Your task to perform on an android device: turn off picture-in-picture Image 0: 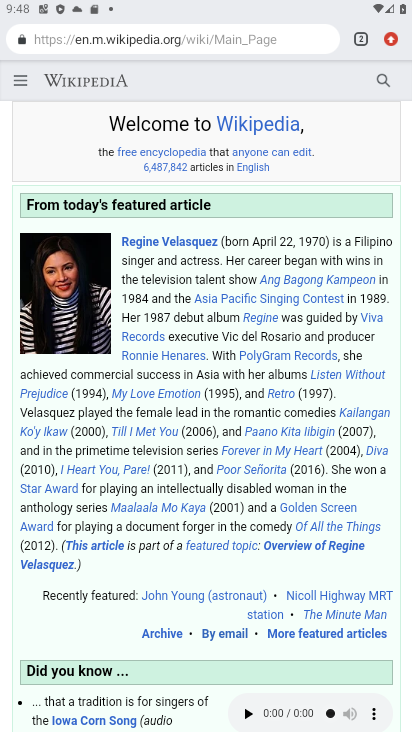
Step 0: press home button
Your task to perform on an android device: turn off picture-in-picture Image 1: 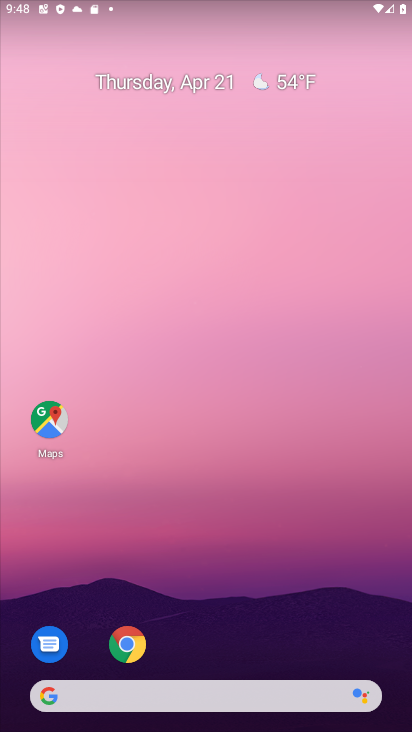
Step 1: drag from (185, 568) to (137, 208)
Your task to perform on an android device: turn off picture-in-picture Image 2: 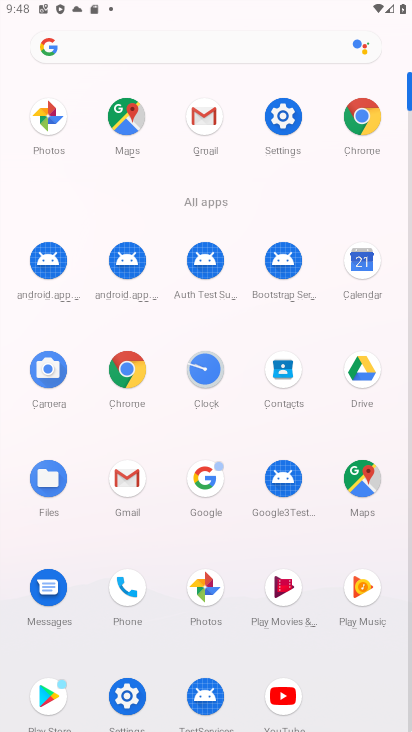
Step 2: click (283, 108)
Your task to perform on an android device: turn off picture-in-picture Image 3: 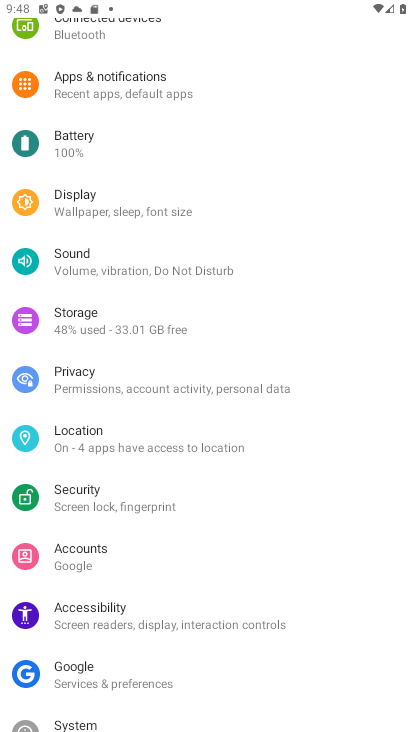
Step 3: click (136, 92)
Your task to perform on an android device: turn off picture-in-picture Image 4: 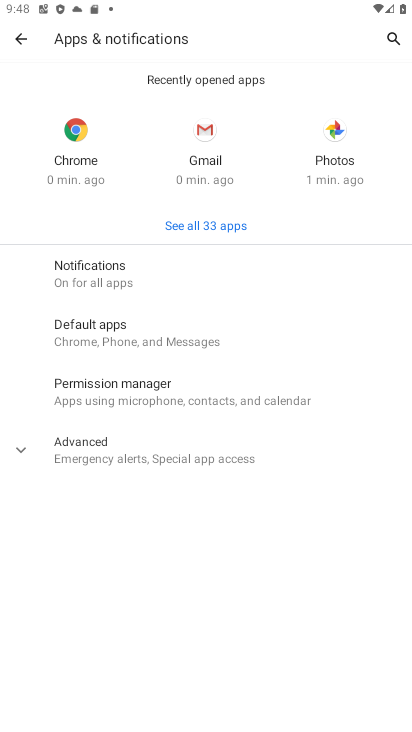
Step 4: click (125, 449)
Your task to perform on an android device: turn off picture-in-picture Image 5: 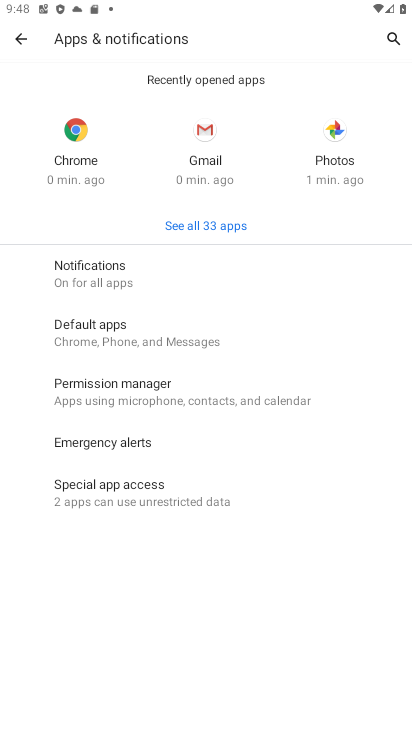
Step 5: click (110, 502)
Your task to perform on an android device: turn off picture-in-picture Image 6: 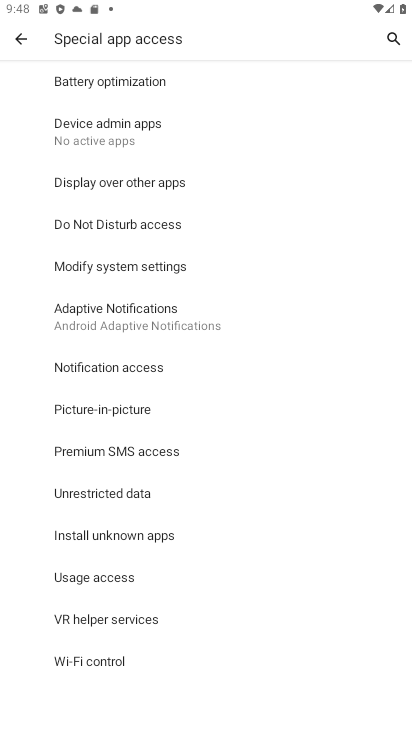
Step 6: click (123, 403)
Your task to perform on an android device: turn off picture-in-picture Image 7: 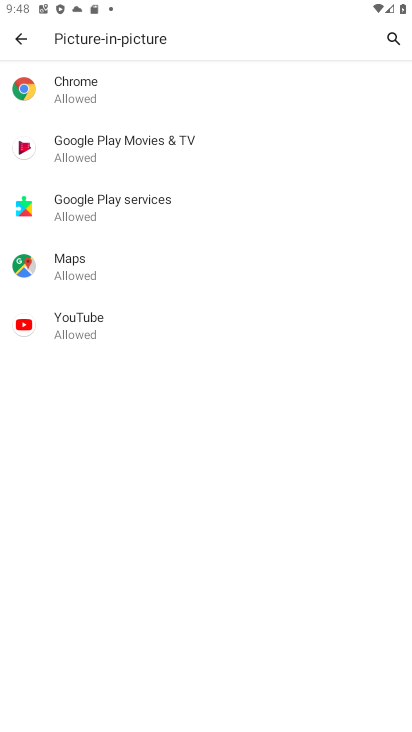
Step 7: click (106, 100)
Your task to perform on an android device: turn off picture-in-picture Image 8: 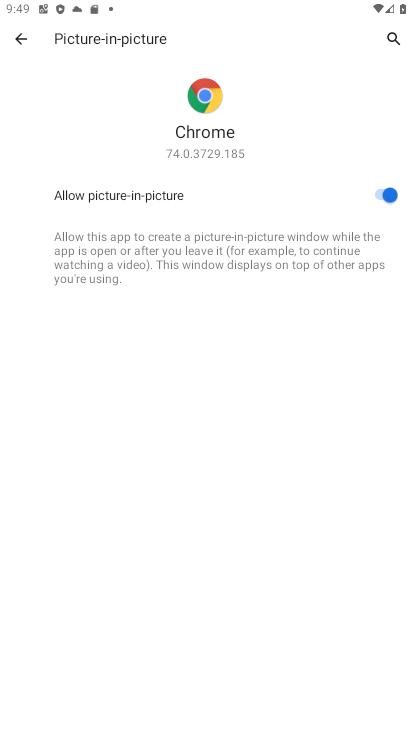
Step 8: click (384, 194)
Your task to perform on an android device: turn off picture-in-picture Image 9: 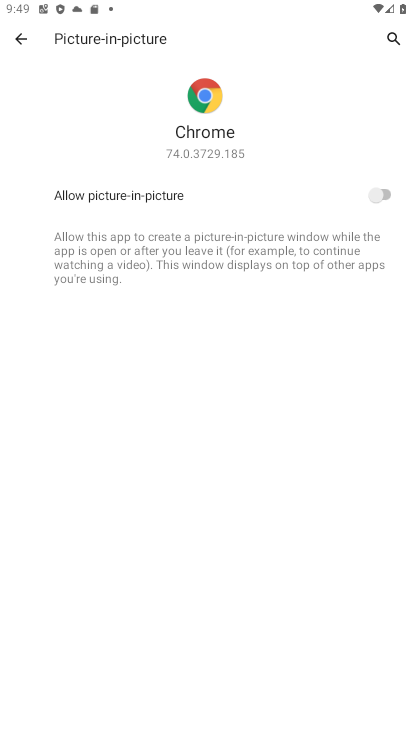
Step 9: press back button
Your task to perform on an android device: turn off picture-in-picture Image 10: 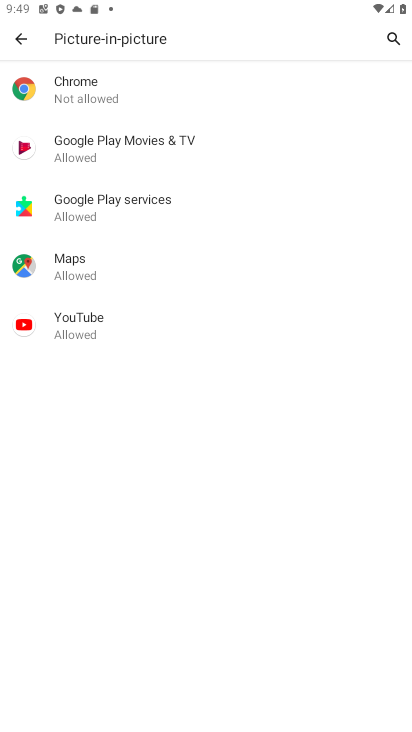
Step 10: click (237, 150)
Your task to perform on an android device: turn off picture-in-picture Image 11: 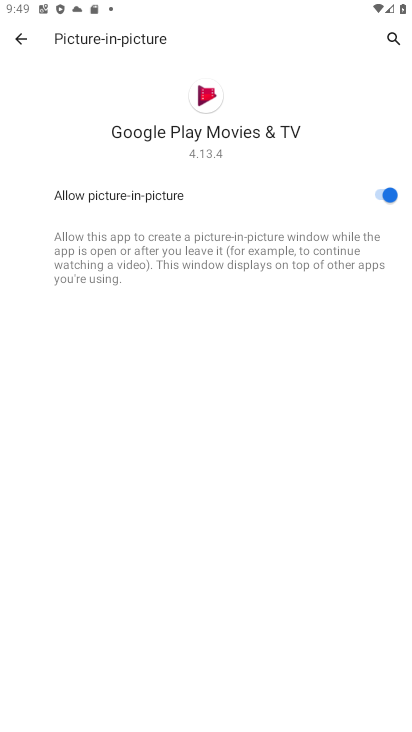
Step 11: click (384, 192)
Your task to perform on an android device: turn off picture-in-picture Image 12: 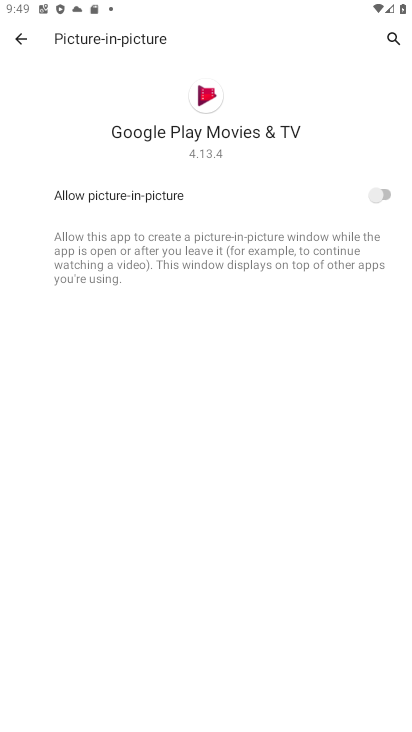
Step 12: press back button
Your task to perform on an android device: turn off picture-in-picture Image 13: 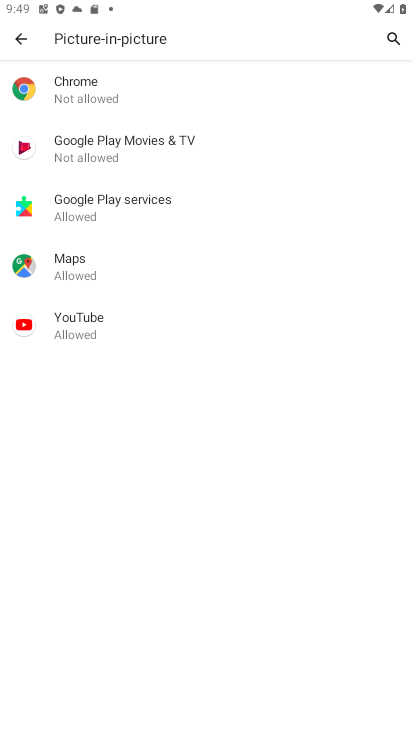
Step 13: click (158, 214)
Your task to perform on an android device: turn off picture-in-picture Image 14: 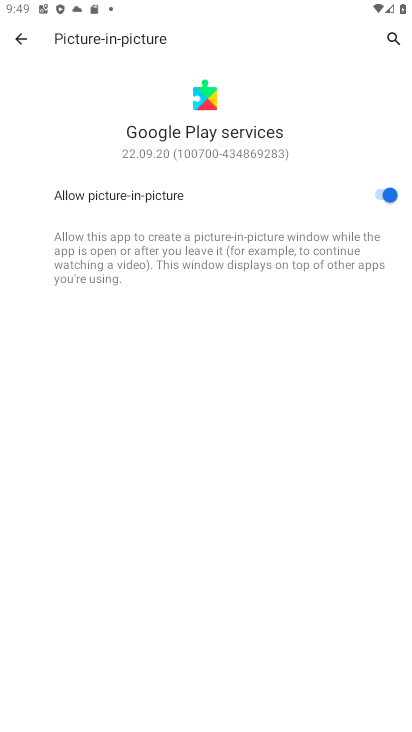
Step 14: click (391, 197)
Your task to perform on an android device: turn off picture-in-picture Image 15: 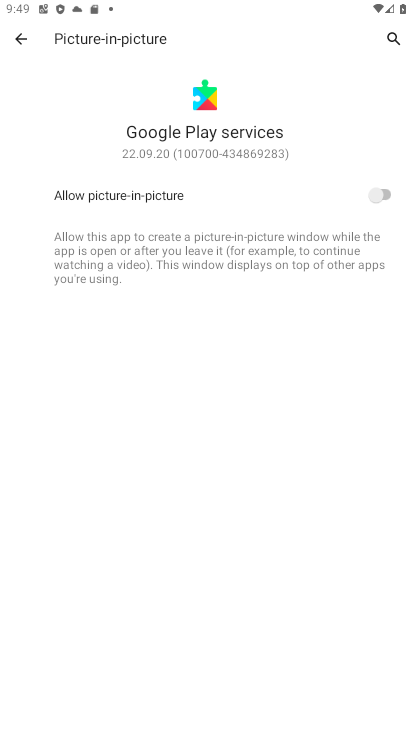
Step 15: press back button
Your task to perform on an android device: turn off picture-in-picture Image 16: 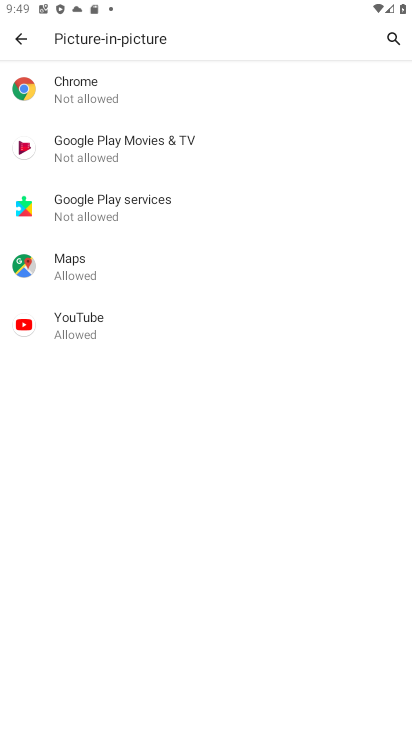
Step 16: click (175, 262)
Your task to perform on an android device: turn off picture-in-picture Image 17: 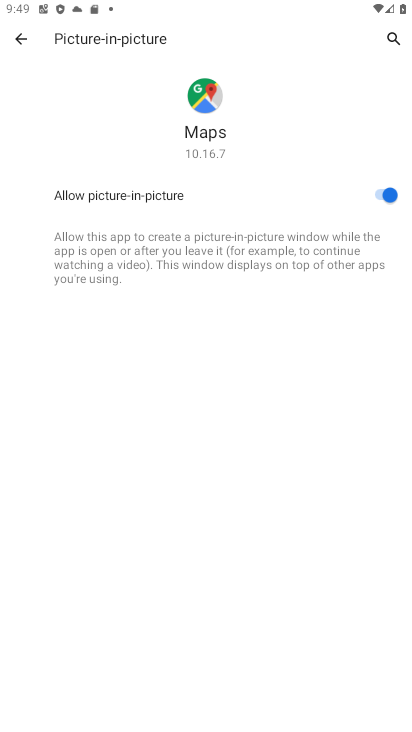
Step 17: click (389, 195)
Your task to perform on an android device: turn off picture-in-picture Image 18: 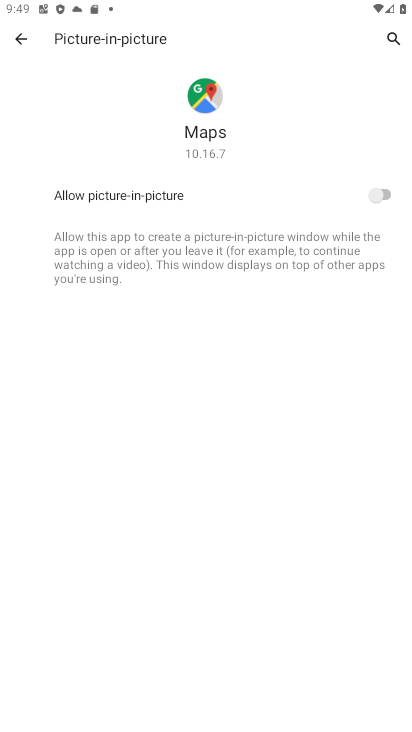
Step 18: press back button
Your task to perform on an android device: turn off picture-in-picture Image 19: 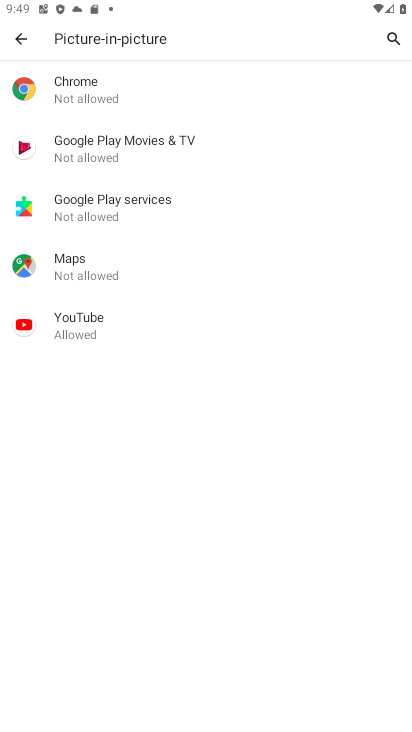
Step 19: click (158, 328)
Your task to perform on an android device: turn off picture-in-picture Image 20: 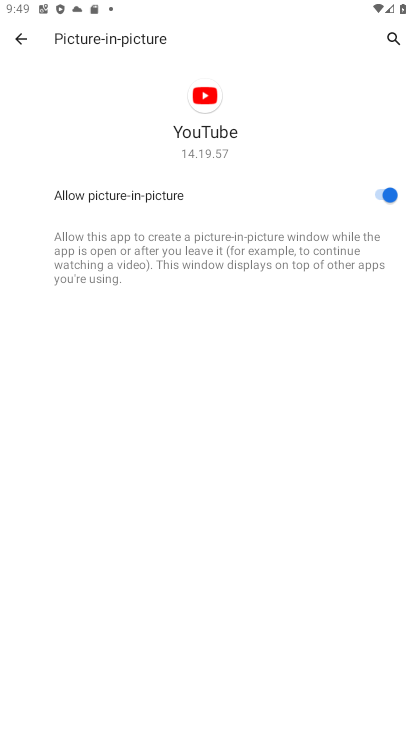
Step 20: click (383, 195)
Your task to perform on an android device: turn off picture-in-picture Image 21: 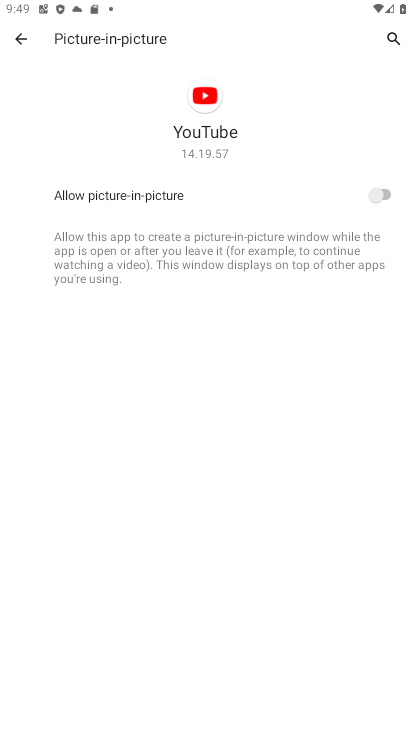
Step 21: task complete